Your task to perform on an android device: Go to display settings Image 0: 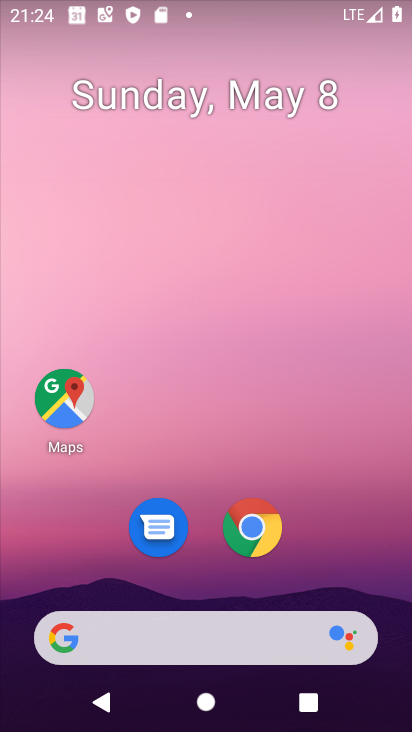
Step 0: drag from (214, 558) to (292, 96)
Your task to perform on an android device: Go to display settings Image 1: 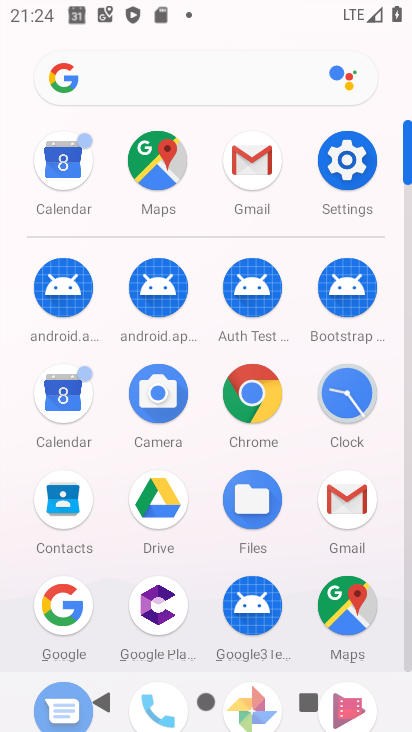
Step 1: click (345, 157)
Your task to perform on an android device: Go to display settings Image 2: 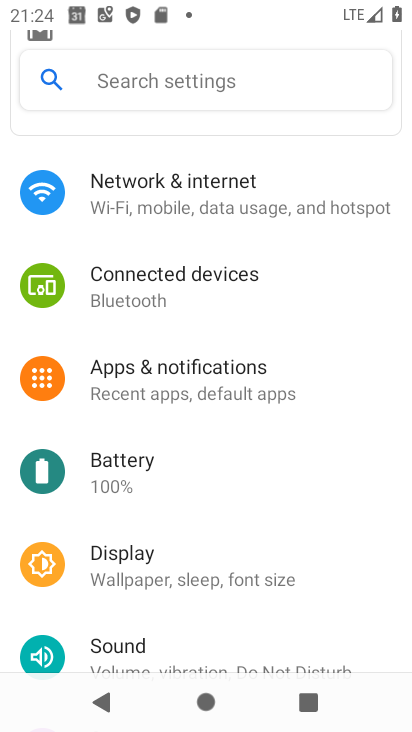
Step 2: click (159, 561)
Your task to perform on an android device: Go to display settings Image 3: 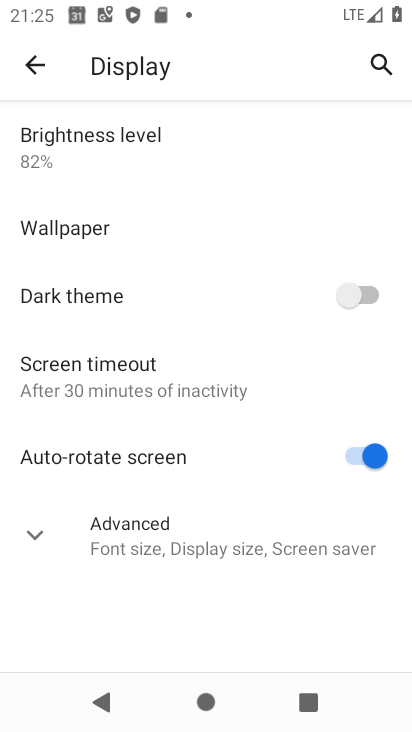
Step 3: task complete